Your task to perform on an android device: check battery use Image 0: 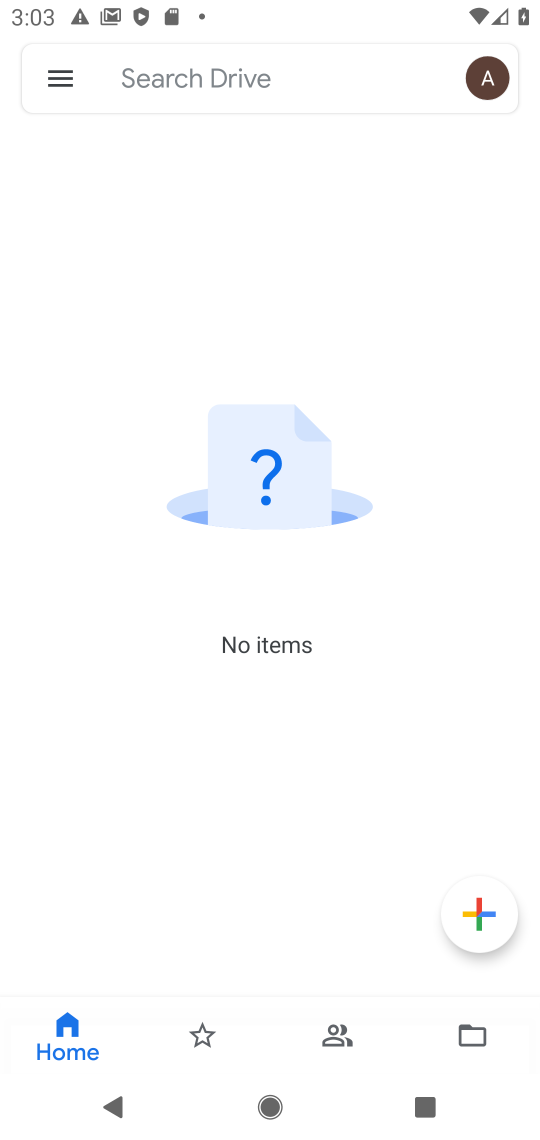
Step 0: press back button
Your task to perform on an android device: check battery use Image 1: 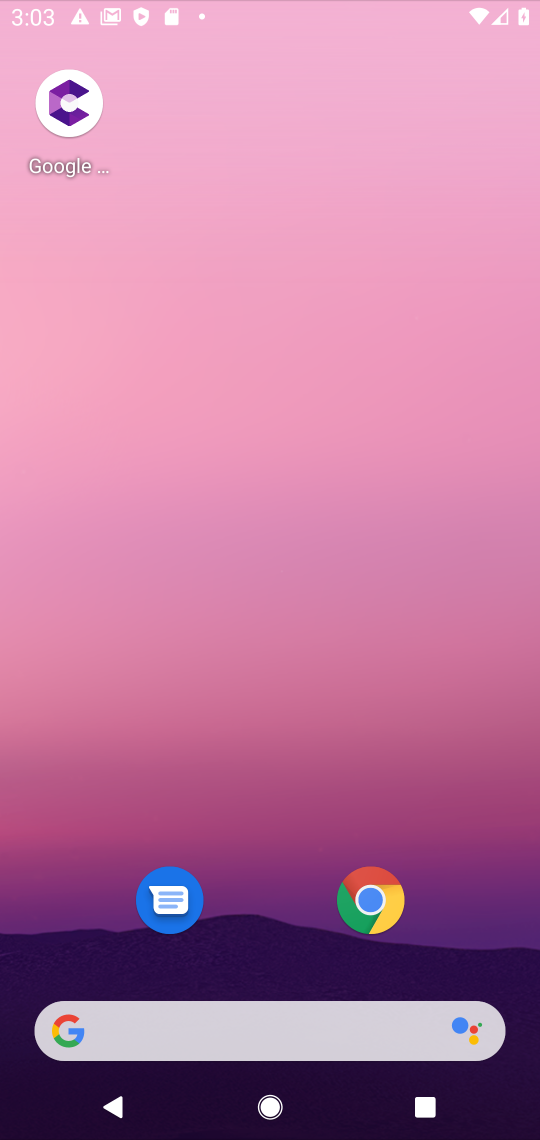
Step 1: drag from (273, 965) to (361, 45)
Your task to perform on an android device: check battery use Image 2: 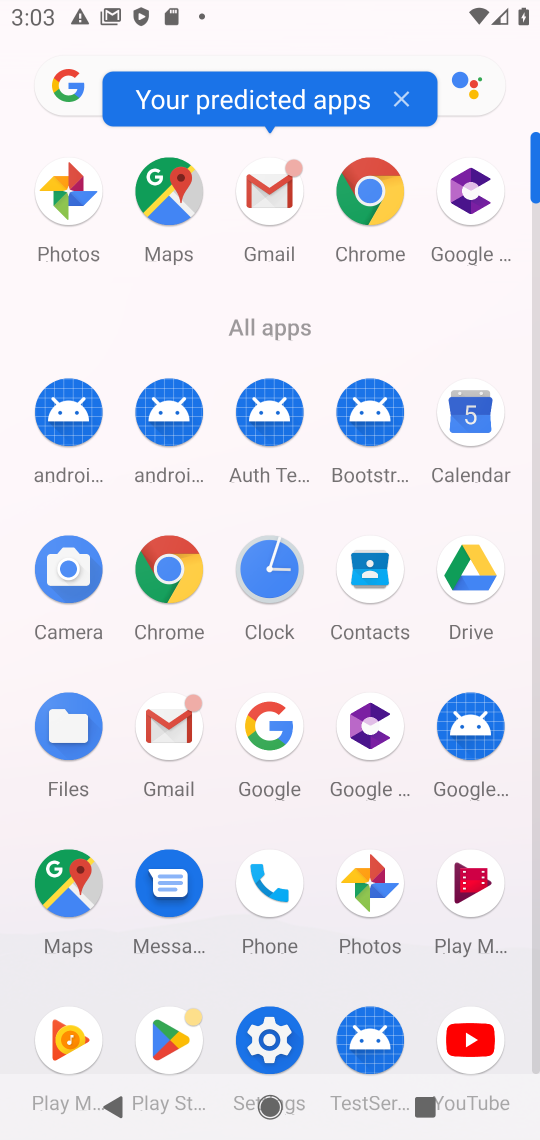
Step 2: click (276, 1025)
Your task to perform on an android device: check battery use Image 3: 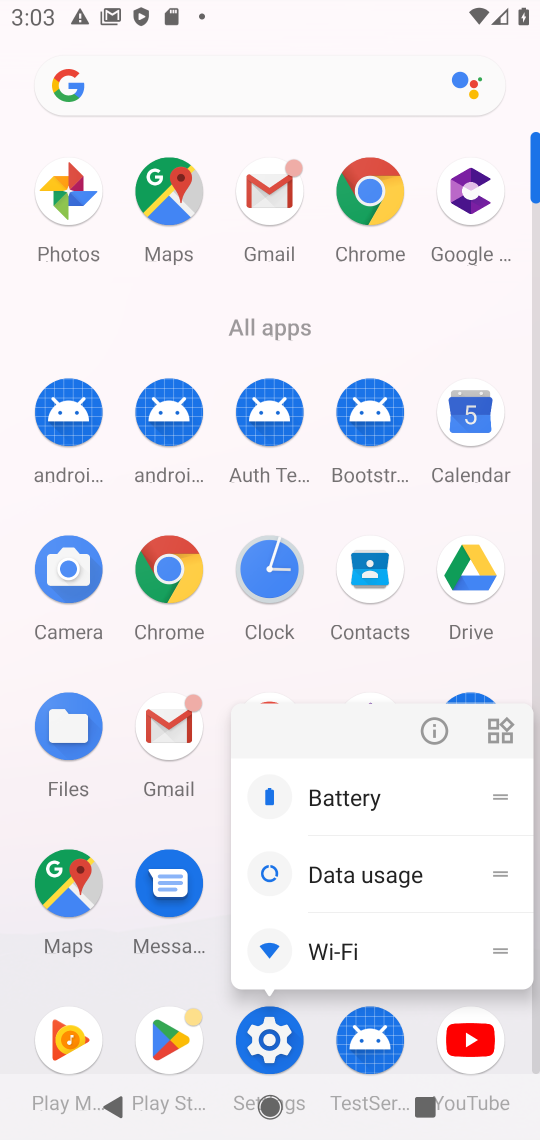
Step 3: click (270, 1038)
Your task to perform on an android device: check battery use Image 4: 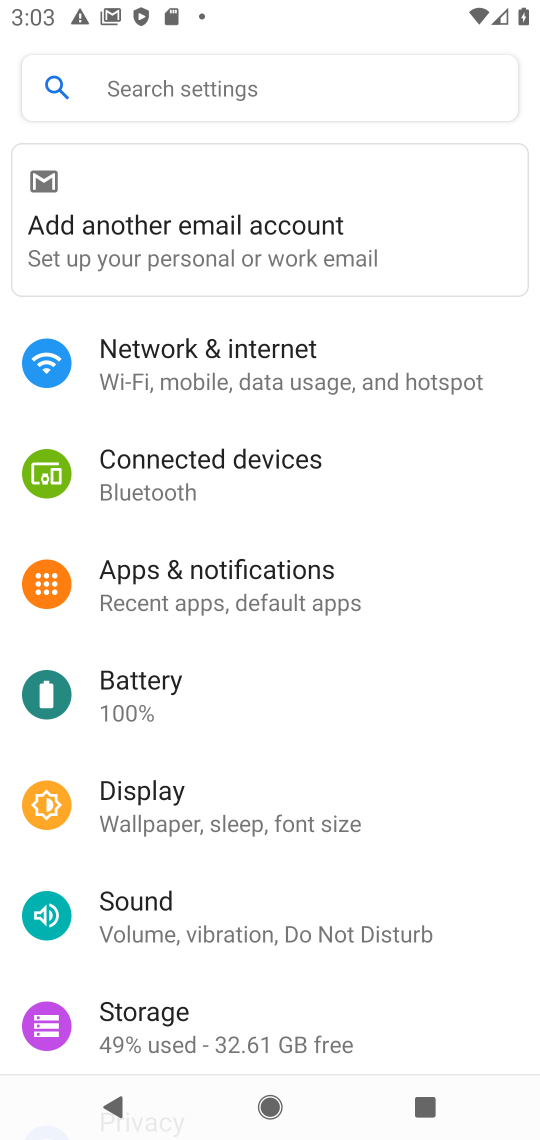
Step 4: drag from (237, 985) to (343, 372)
Your task to perform on an android device: check battery use Image 5: 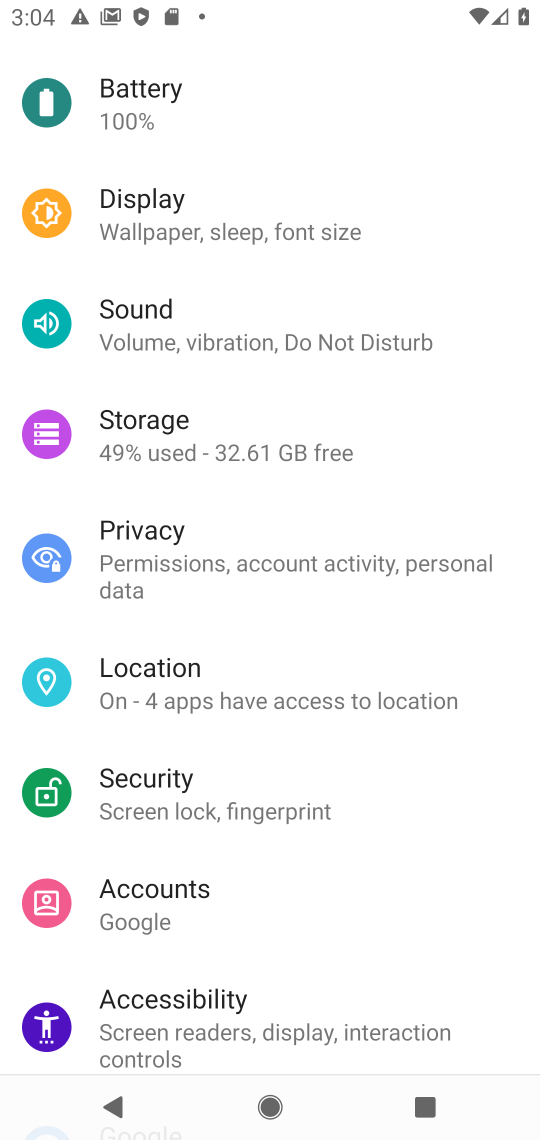
Step 5: click (240, 115)
Your task to perform on an android device: check battery use Image 6: 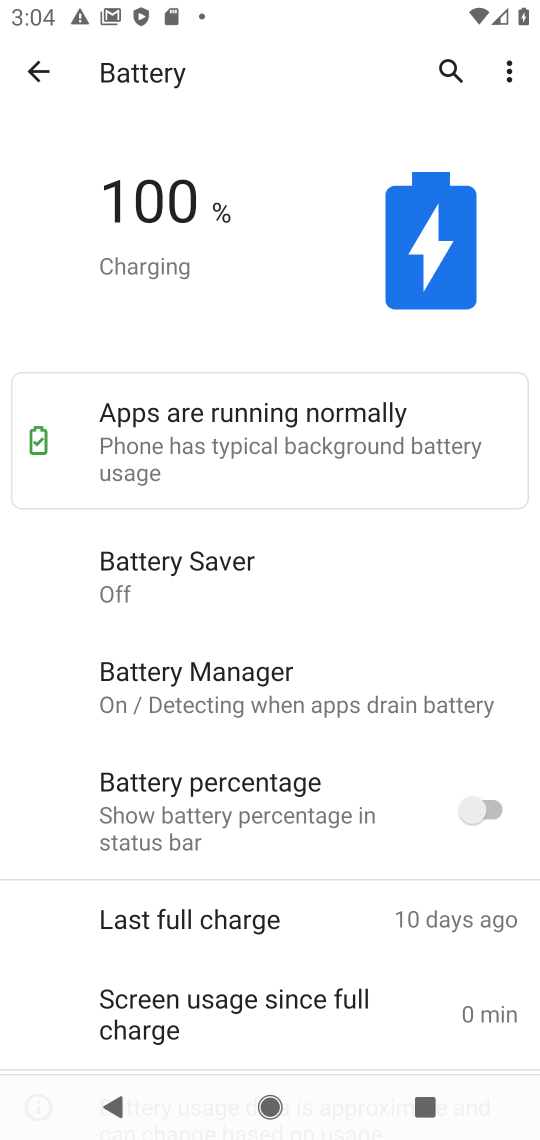
Step 6: click (509, 75)
Your task to perform on an android device: check battery use Image 7: 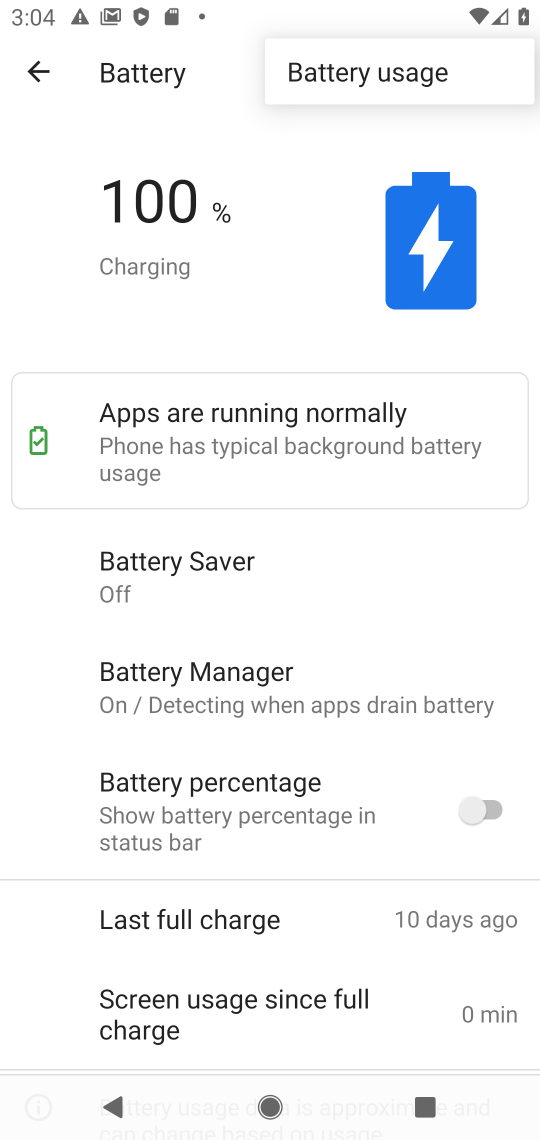
Step 7: click (427, 85)
Your task to perform on an android device: check battery use Image 8: 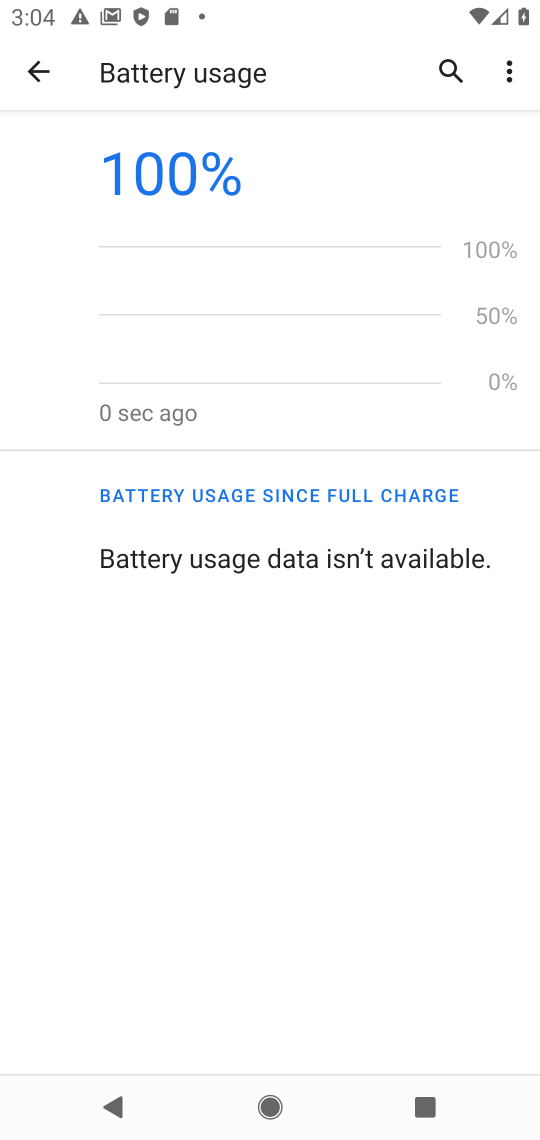
Step 8: task complete